Your task to perform on an android device: manage bookmarks in the chrome app Image 0: 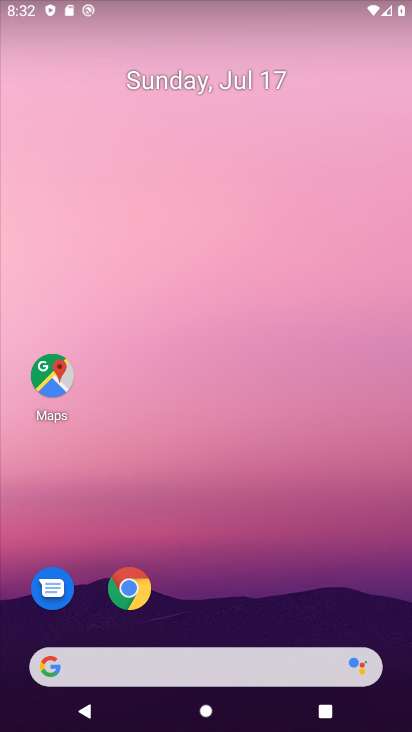
Step 0: drag from (224, 645) to (160, 135)
Your task to perform on an android device: manage bookmarks in the chrome app Image 1: 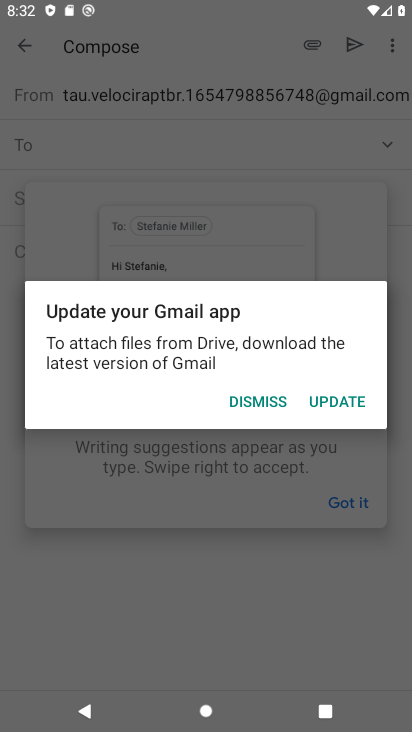
Step 1: click (262, 407)
Your task to perform on an android device: manage bookmarks in the chrome app Image 2: 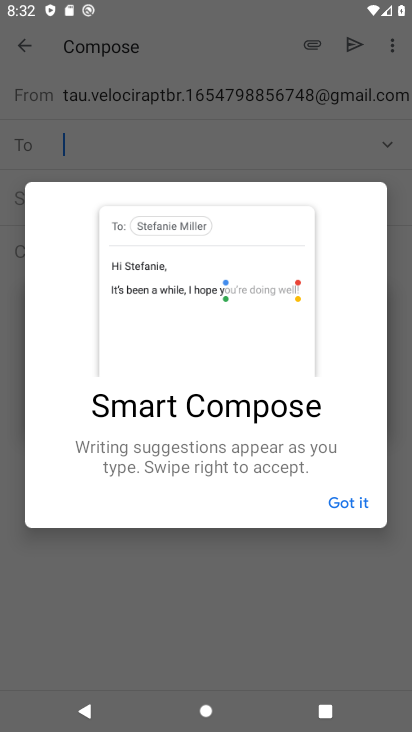
Step 2: click (350, 519)
Your task to perform on an android device: manage bookmarks in the chrome app Image 3: 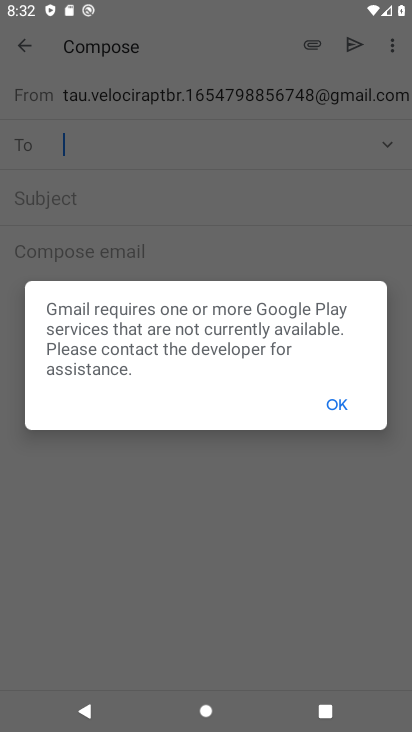
Step 3: click (345, 406)
Your task to perform on an android device: manage bookmarks in the chrome app Image 4: 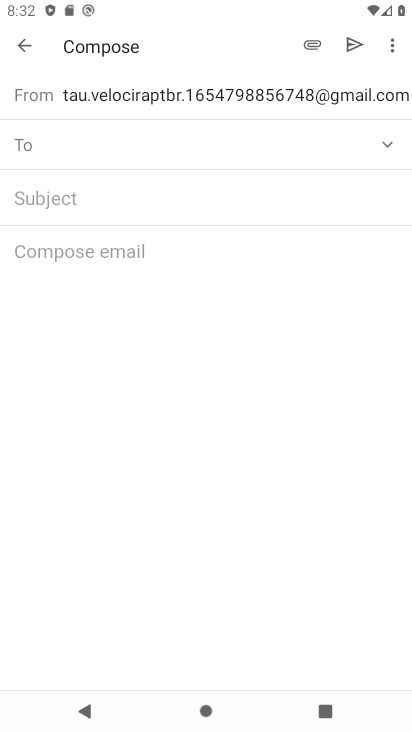
Step 4: press home button
Your task to perform on an android device: manage bookmarks in the chrome app Image 5: 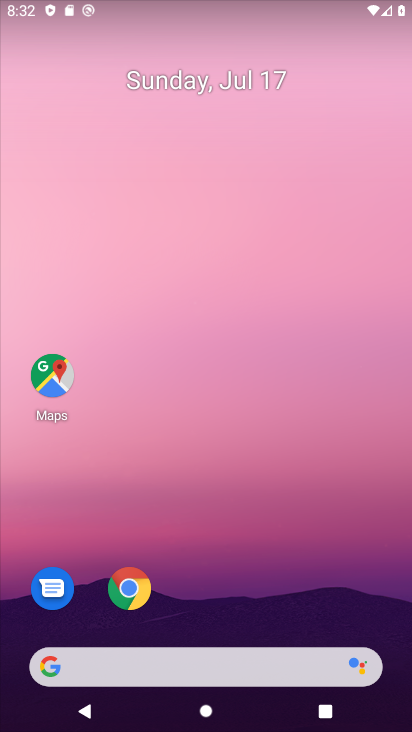
Step 5: click (101, 600)
Your task to perform on an android device: manage bookmarks in the chrome app Image 6: 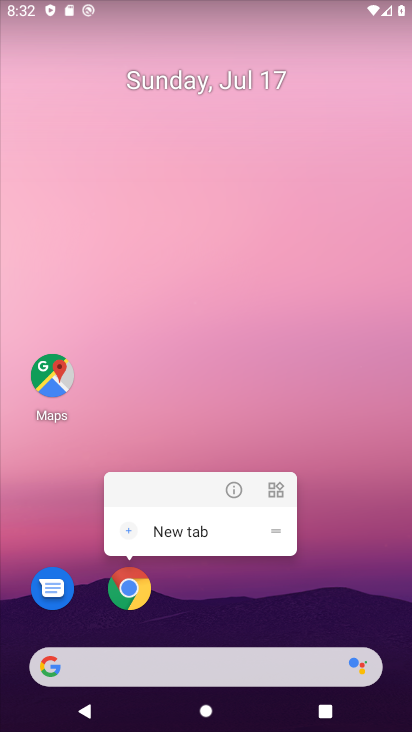
Step 6: click (141, 588)
Your task to perform on an android device: manage bookmarks in the chrome app Image 7: 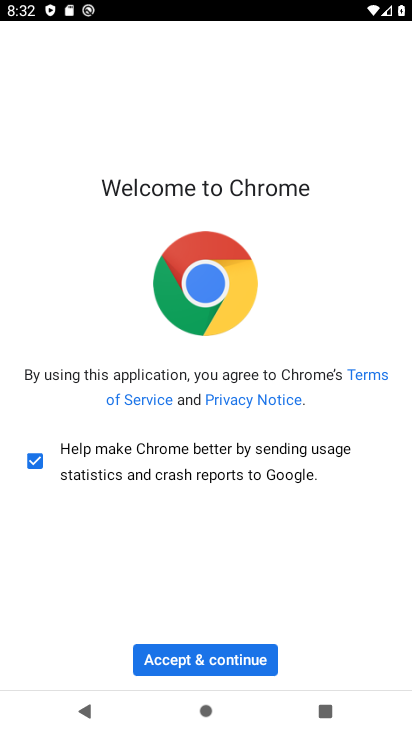
Step 7: click (231, 659)
Your task to perform on an android device: manage bookmarks in the chrome app Image 8: 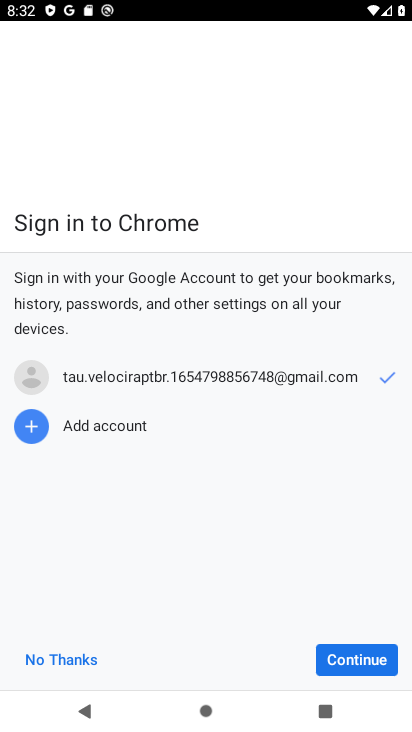
Step 8: click (339, 654)
Your task to perform on an android device: manage bookmarks in the chrome app Image 9: 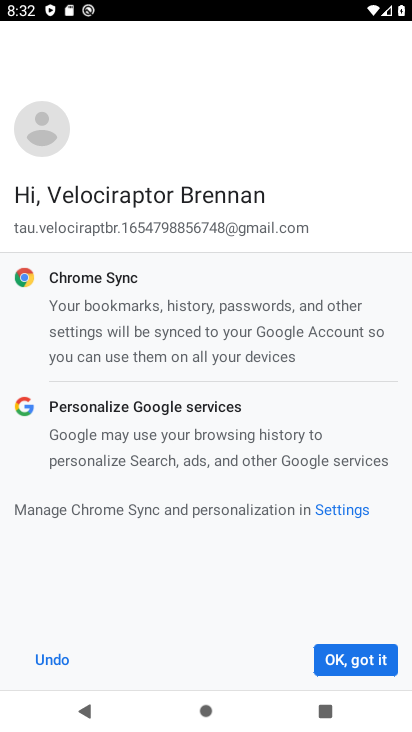
Step 9: click (343, 647)
Your task to perform on an android device: manage bookmarks in the chrome app Image 10: 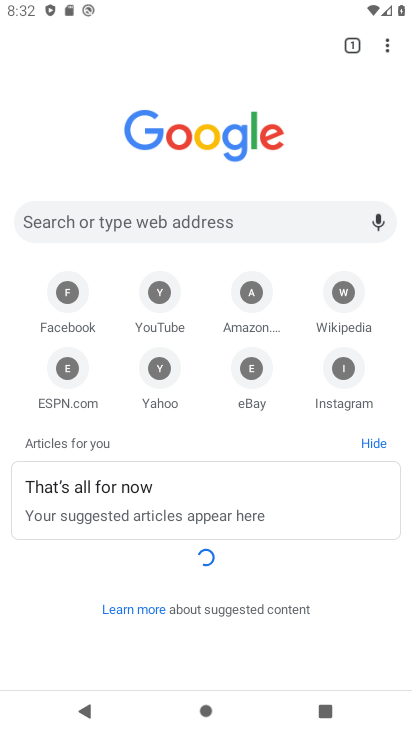
Step 10: drag from (390, 47) to (245, 168)
Your task to perform on an android device: manage bookmarks in the chrome app Image 11: 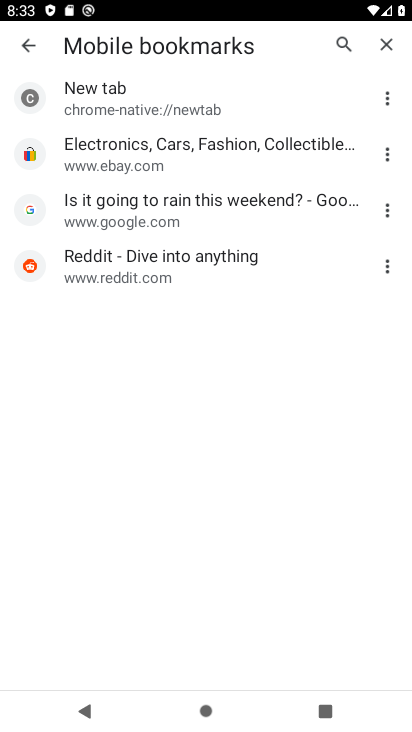
Step 11: click (389, 95)
Your task to perform on an android device: manage bookmarks in the chrome app Image 12: 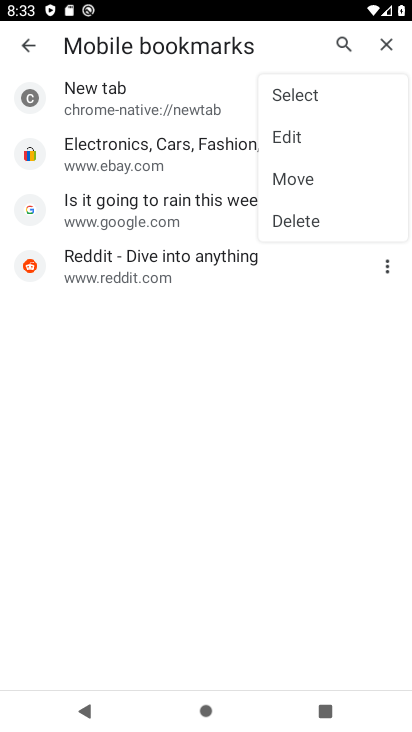
Step 12: click (305, 146)
Your task to perform on an android device: manage bookmarks in the chrome app Image 13: 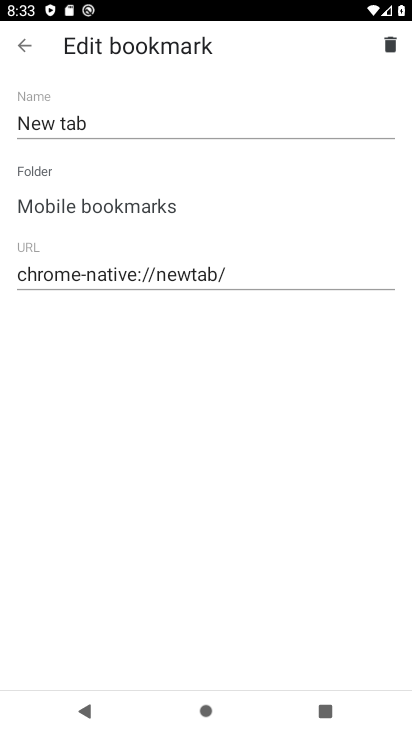
Step 13: task complete